Your task to perform on an android device: change the clock style Image 0: 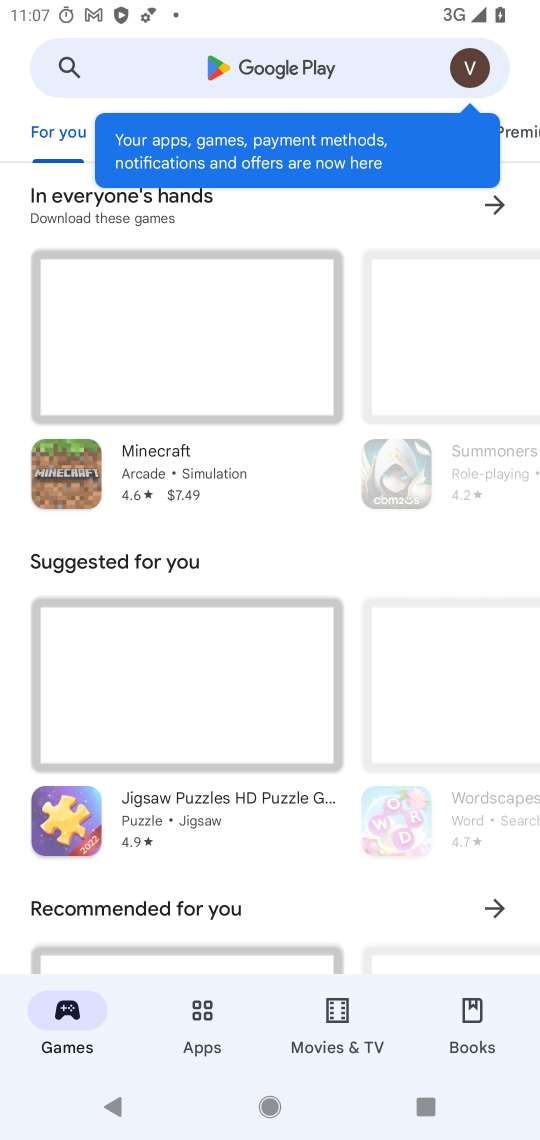
Step 0: press home button
Your task to perform on an android device: change the clock style Image 1: 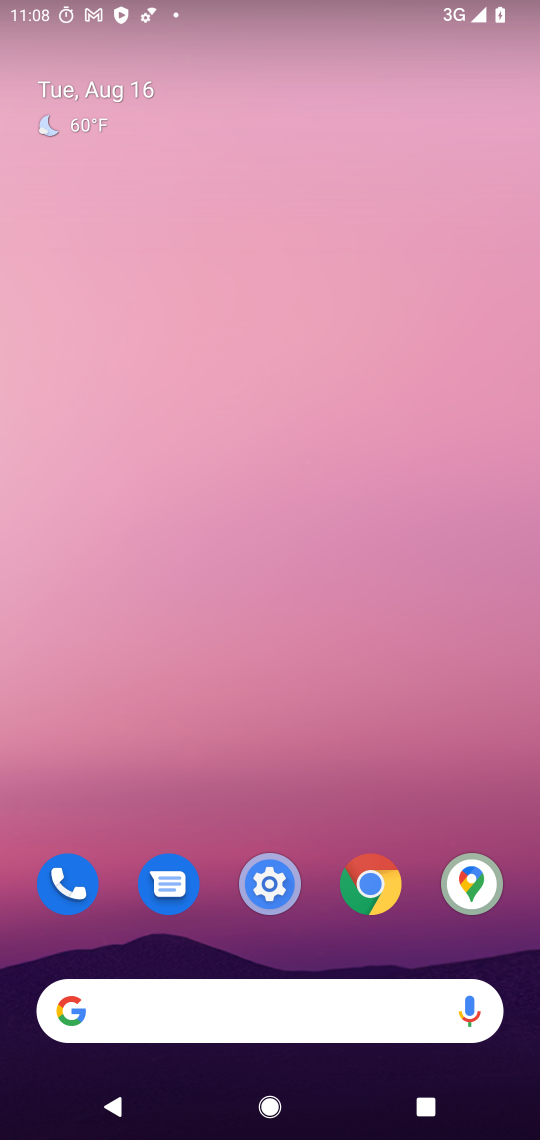
Step 1: drag from (238, 795) to (179, 84)
Your task to perform on an android device: change the clock style Image 2: 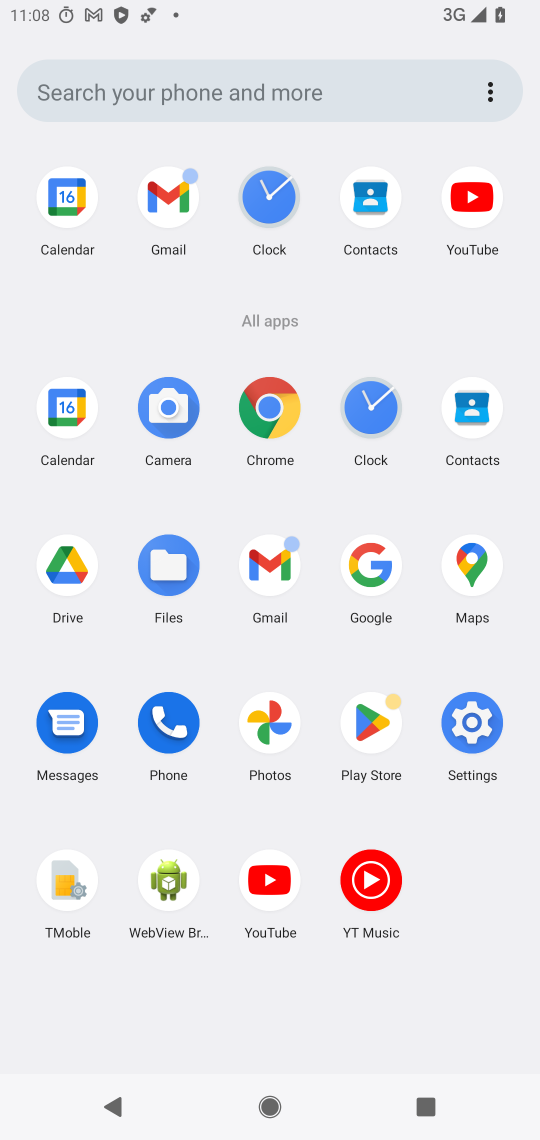
Step 2: click (366, 422)
Your task to perform on an android device: change the clock style Image 3: 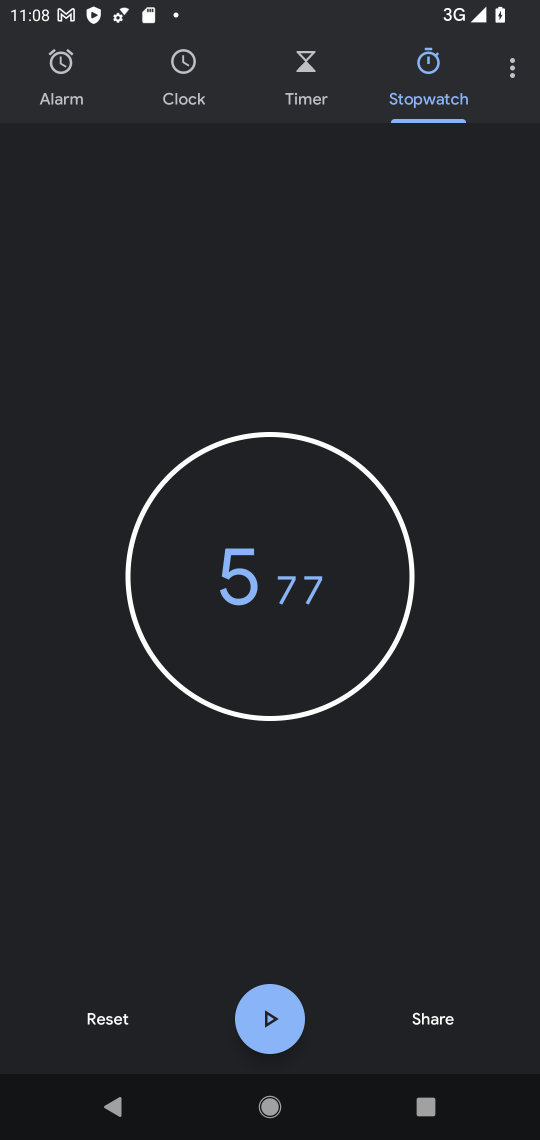
Step 3: click (517, 78)
Your task to perform on an android device: change the clock style Image 4: 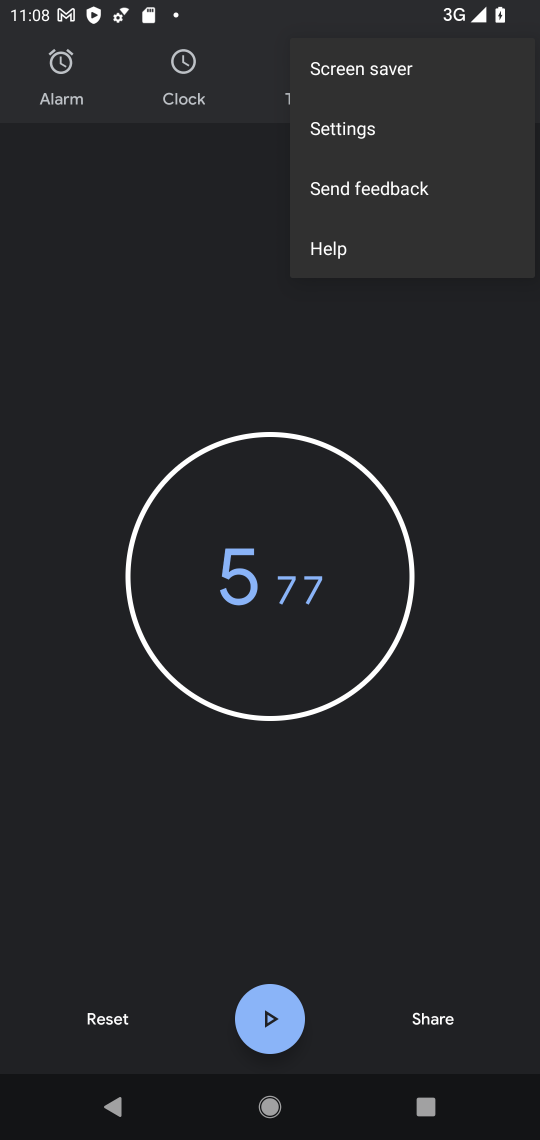
Step 4: click (356, 128)
Your task to perform on an android device: change the clock style Image 5: 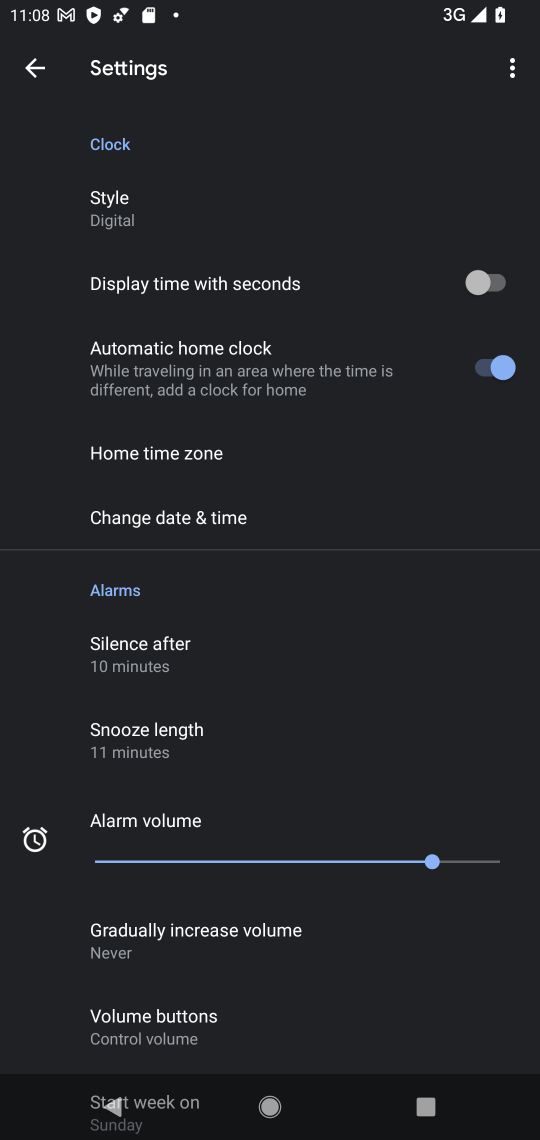
Step 5: click (124, 216)
Your task to perform on an android device: change the clock style Image 6: 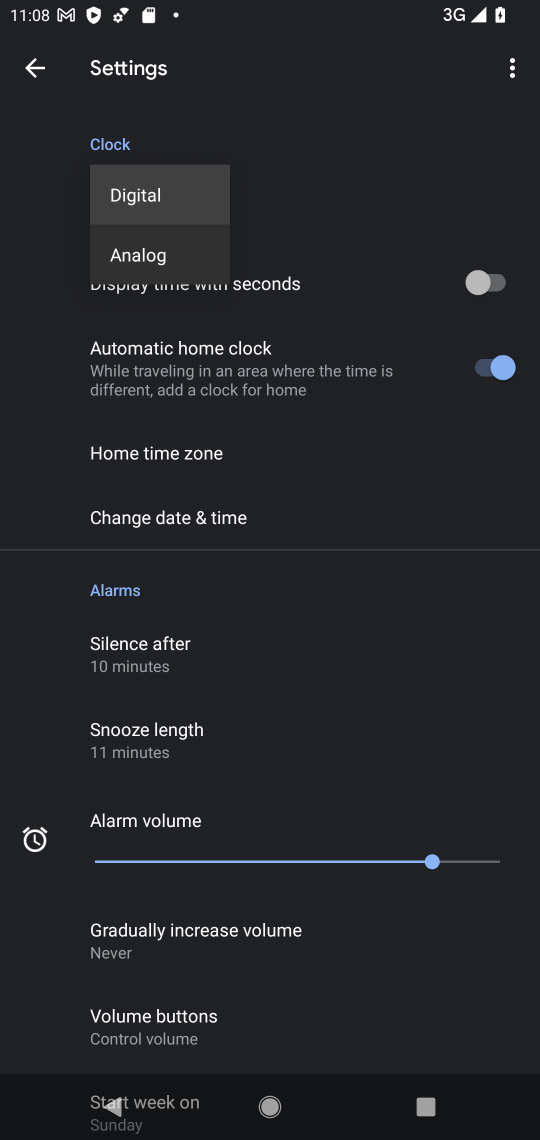
Step 6: click (139, 255)
Your task to perform on an android device: change the clock style Image 7: 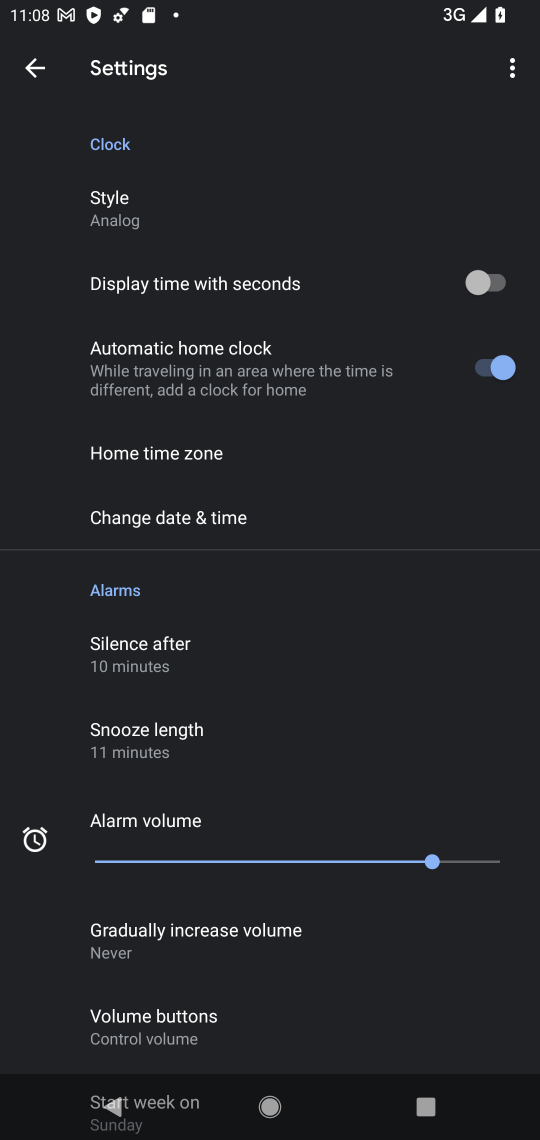
Step 7: task complete